Your task to perform on an android device: open chrome privacy settings Image 0: 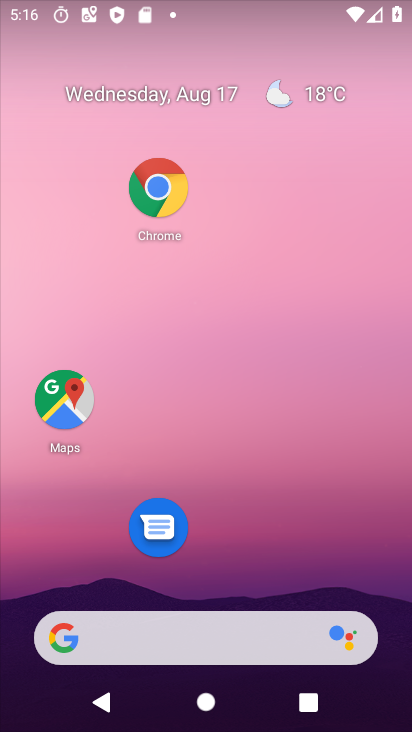
Step 0: drag from (223, 595) to (305, 91)
Your task to perform on an android device: open chrome privacy settings Image 1: 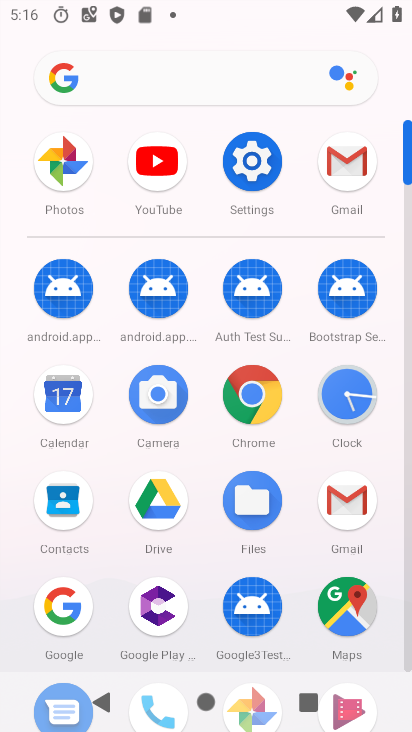
Step 1: click (257, 157)
Your task to perform on an android device: open chrome privacy settings Image 2: 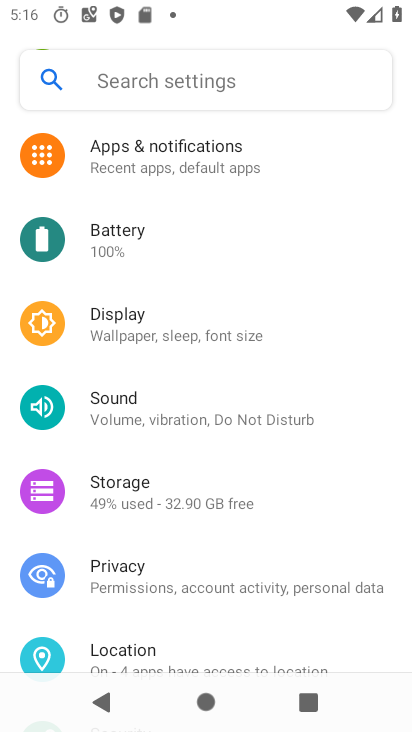
Step 2: click (121, 570)
Your task to perform on an android device: open chrome privacy settings Image 3: 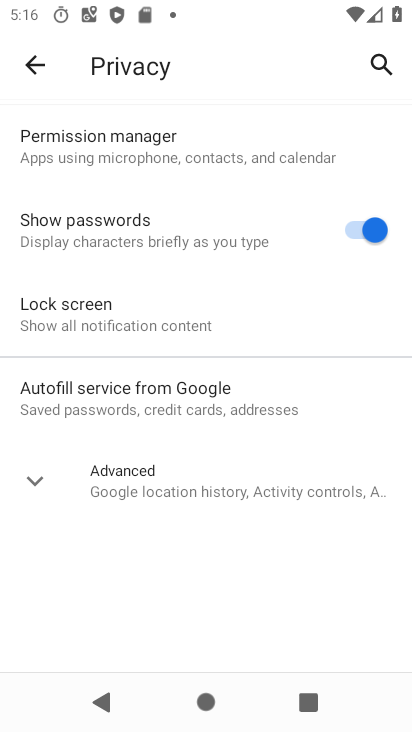
Step 3: task complete